Your task to perform on an android device: set default search engine in the chrome app Image 0: 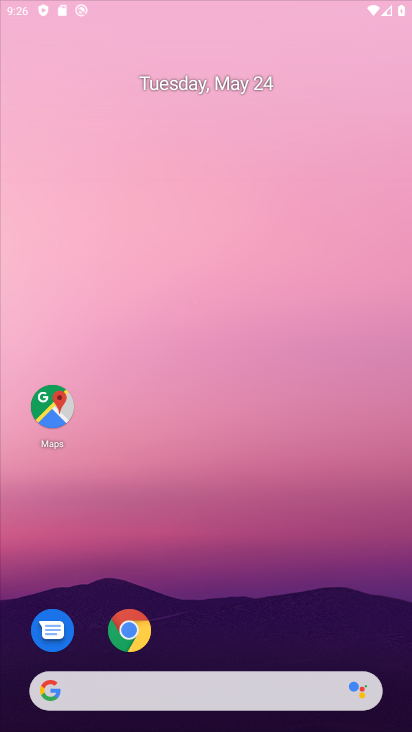
Step 0: press home button
Your task to perform on an android device: set default search engine in the chrome app Image 1: 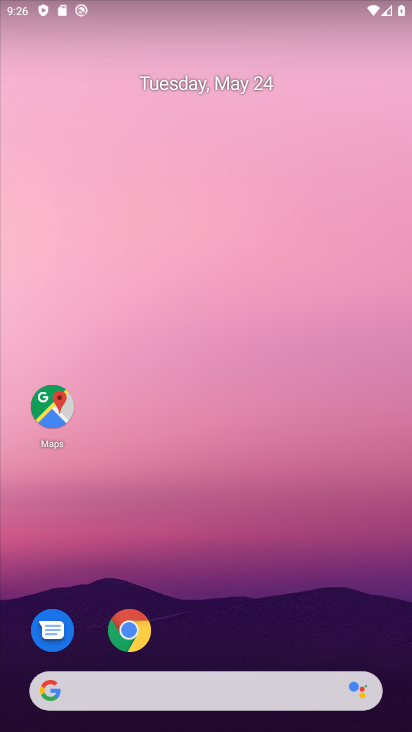
Step 1: click (123, 624)
Your task to perform on an android device: set default search engine in the chrome app Image 2: 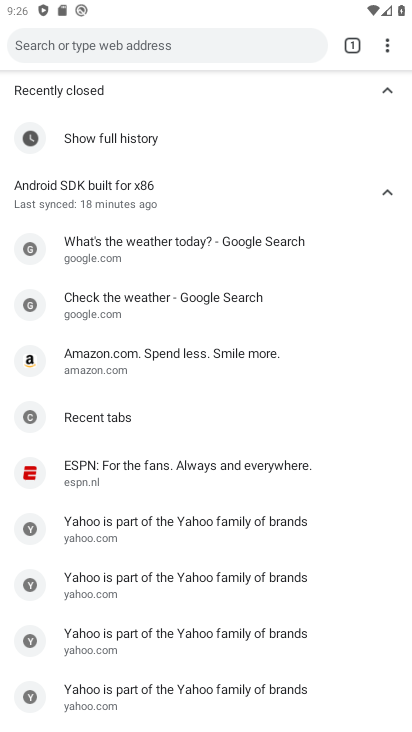
Step 2: click (389, 45)
Your task to perform on an android device: set default search engine in the chrome app Image 3: 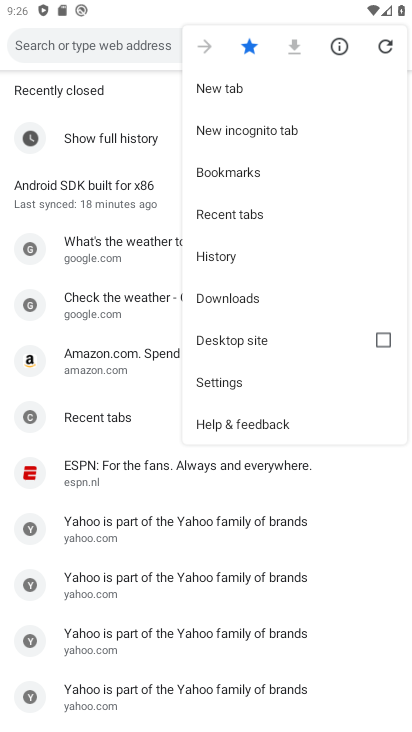
Step 3: click (247, 381)
Your task to perform on an android device: set default search engine in the chrome app Image 4: 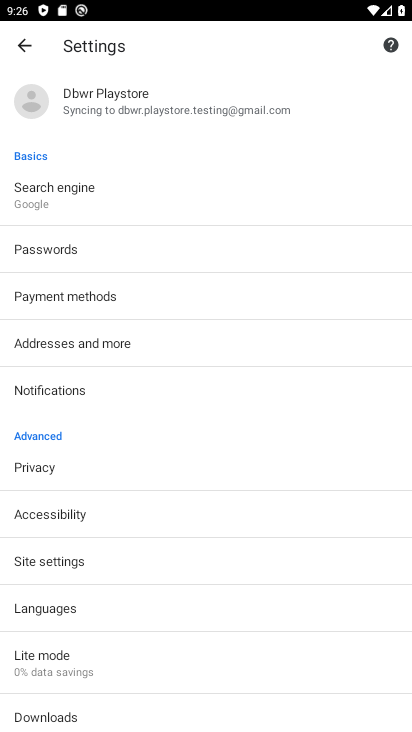
Step 4: click (106, 206)
Your task to perform on an android device: set default search engine in the chrome app Image 5: 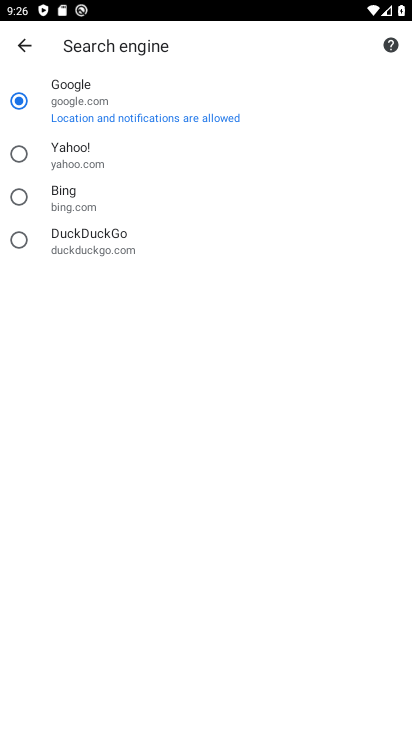
Step 5: click (18, 193)
Your task to perform on an android device: set default search engine in the chrome app Image 6: 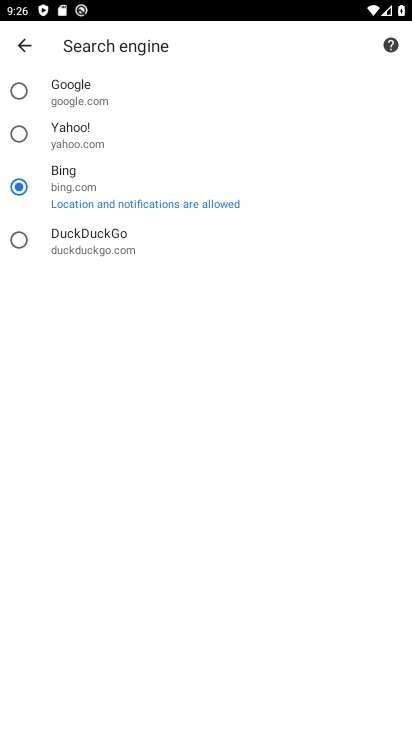
Step 6: task complete